Your task to perform on an android device: set the timer Image 0: 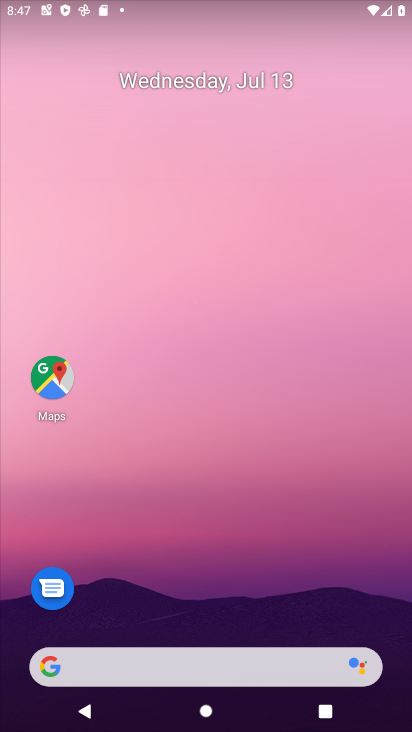
Step 0: drag from (305, 699) to (344, 43)
Your task to perform on an android device: set the timer Image 1: 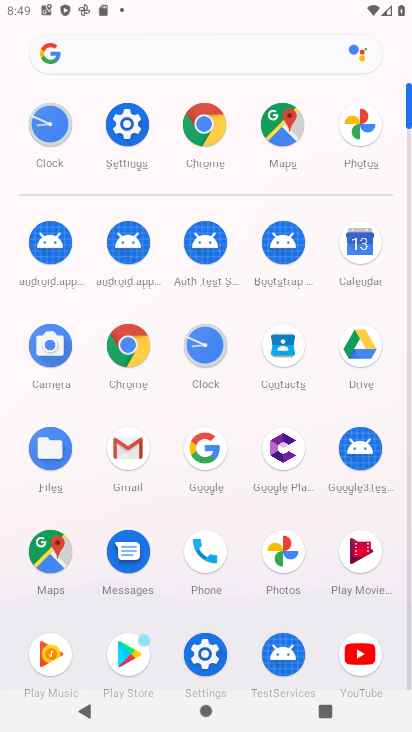
Step 1: click (55, 127)
Your task to perform on an android device: set the timer Image 2: 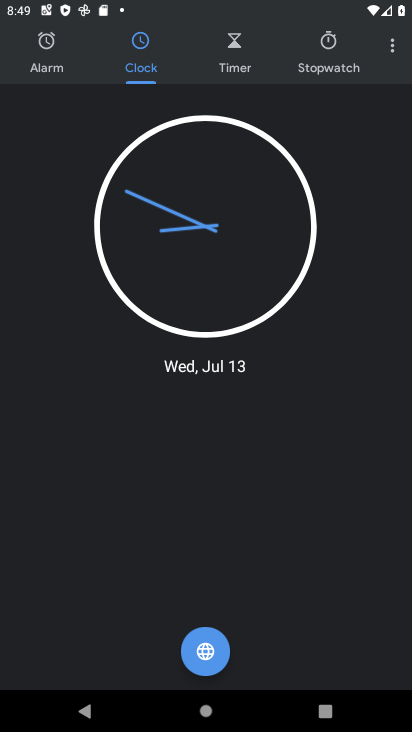
Step 2: click (248, 45)
Your task to perform on an android device: set the timer Image 3: 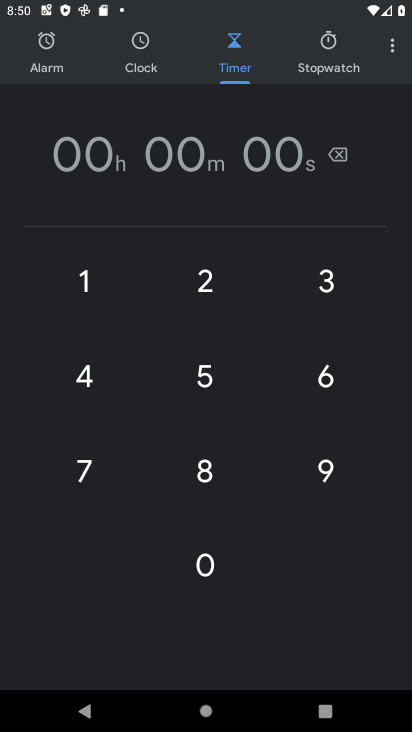
Step 3: click (213, 282)
Your task to perform on an android device: set the timer Image 4: 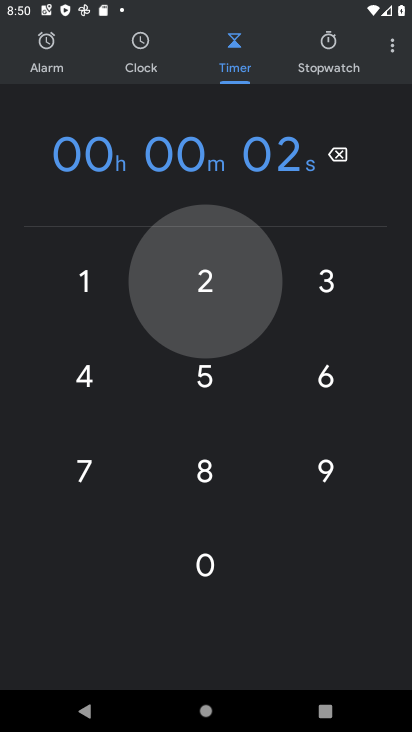
Step 4: click (204, 380)
Your task to perform on an android device: set the timer Image 5: 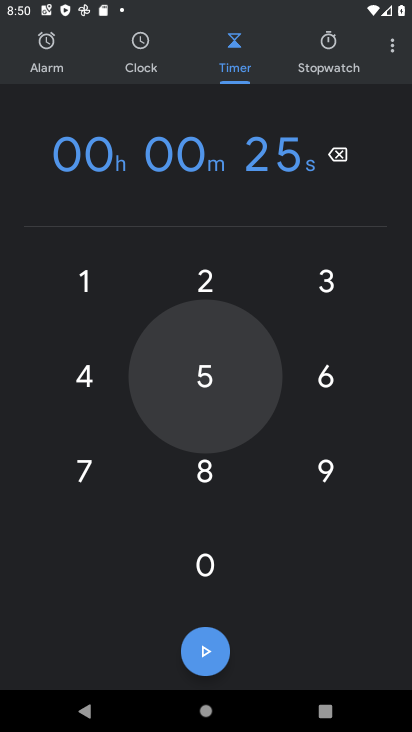
Step 5: click (330, 286)
Your task to perform on an android device: set the timer Image 6: 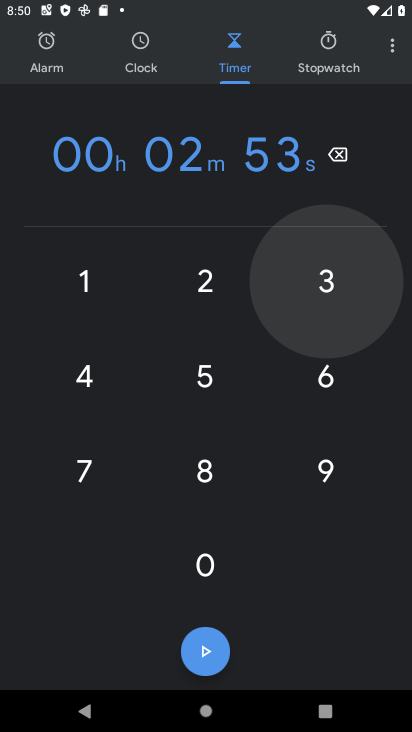
Step 6: click (330, 384)
Your task to perform on an android device: set the timer Image 7: 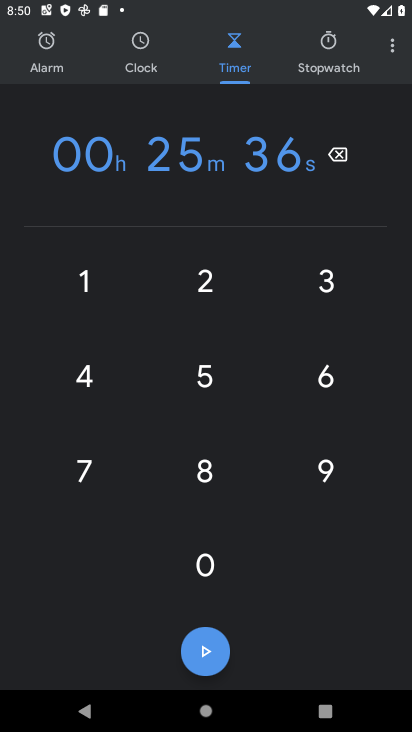
Step 7: click (317, 473)
Your task to perform on an android device: set the timer Image 8: 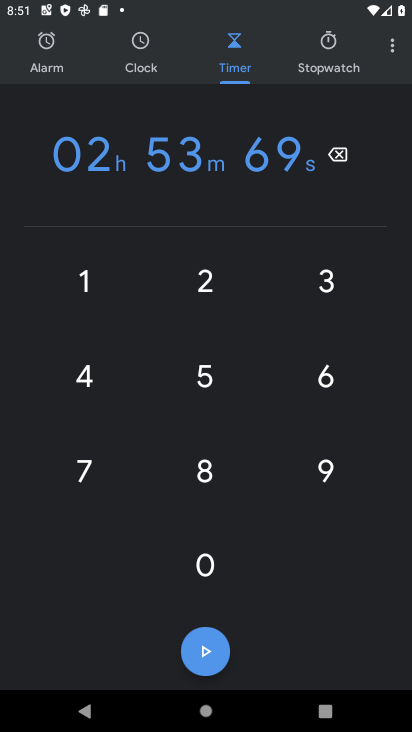
Step 8: task complete